Your task to perform on an android device: check google app version Image 0: 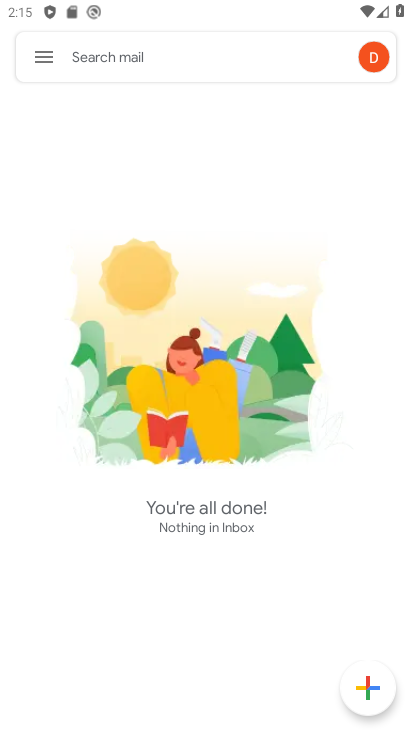
Step 0: press home button
Your task to perform on an android device: check google app version Image 1: 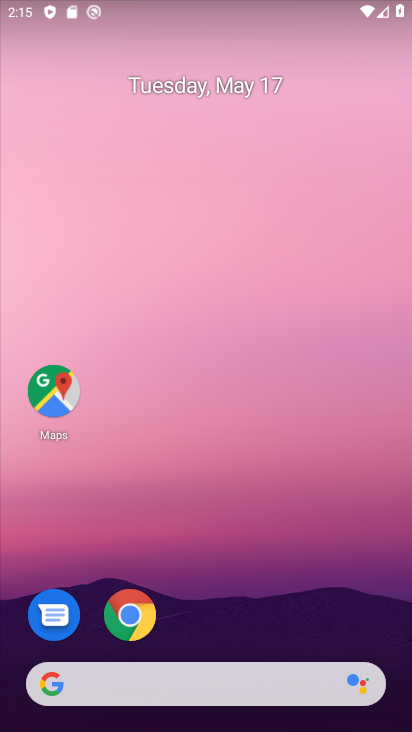
Step 1: drag from (208, 624) to (316, 54)
Your task to perform on an android device: check google app version Image 2: 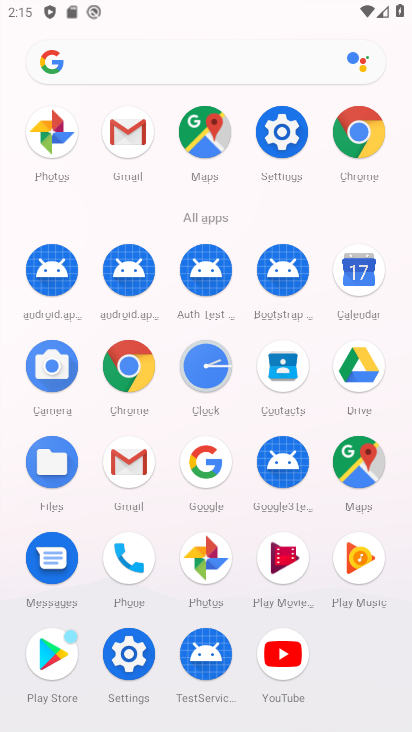
Step 2: click (201, 460)
Your task to perform on an android device: check google app version Image 3: 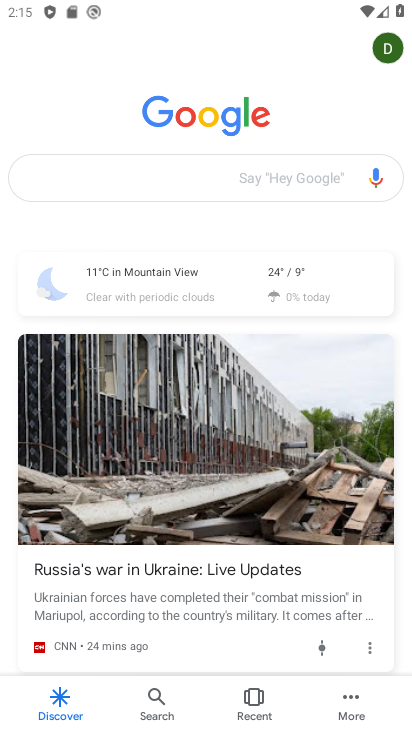
Step 3: click (353, 696)
Your task to perform on an android device: check google app version Image 4: 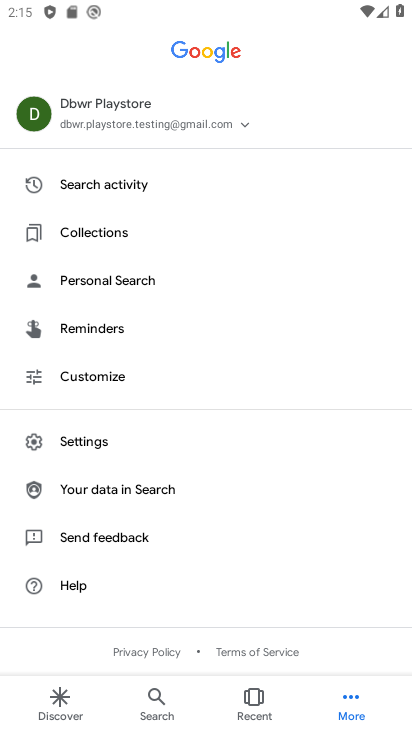
Step 4: click (119, 441)
Your task to perform on an android device: check google app version Image 5: 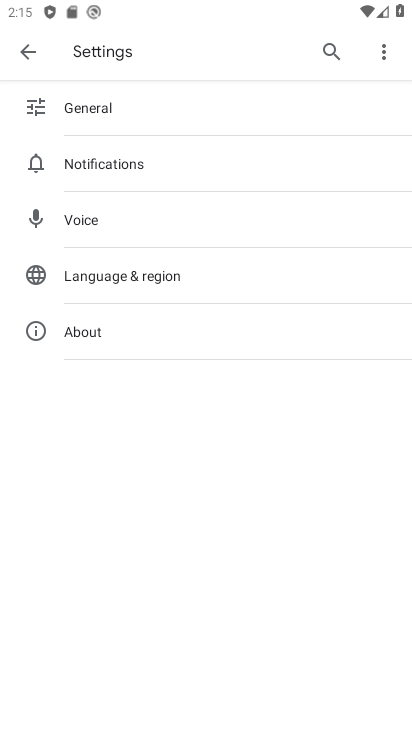
Step 5: click (102, 328)
Your task to perform on an android device: check google app version Image 6: 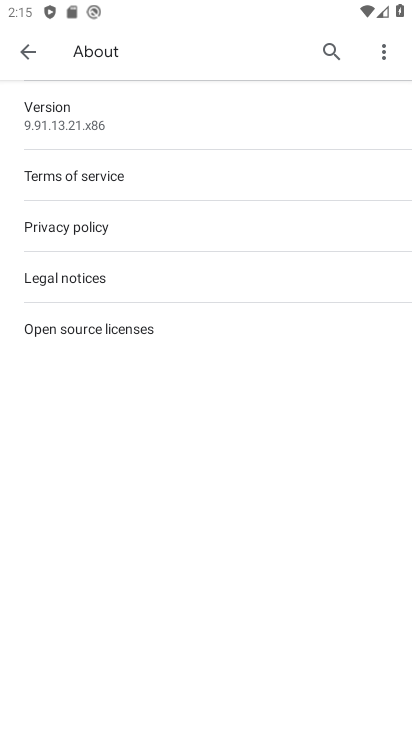
Step 6: task complete